Your task to perform on an android device: Go to internet settings Image 0: 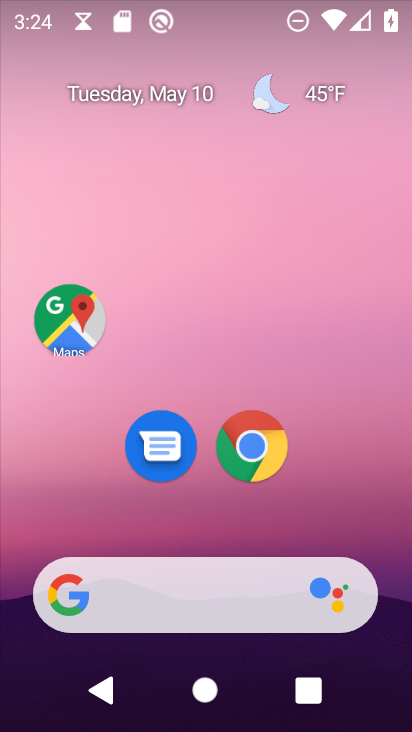
Step 0: drag from (364, 485) to (374, 39)
Your task to perform on an android device: Go to internet settings Image 1: 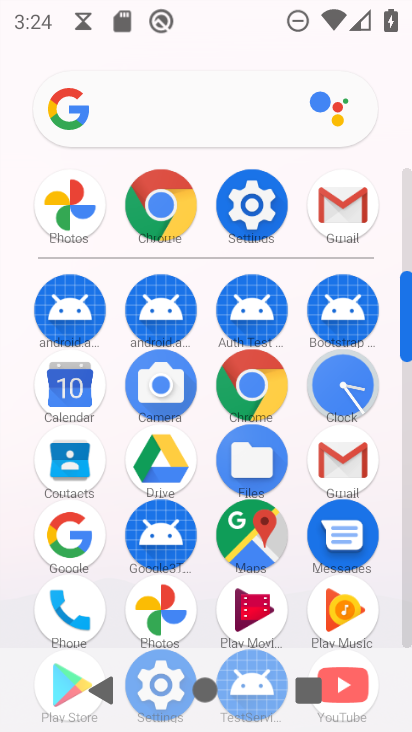
Step 1: click (266, 203)
Your task to perform on an android device: Go to internet settings Image 2: 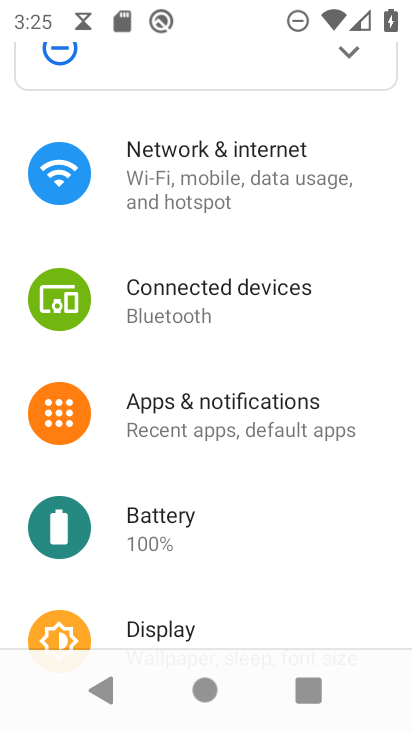
Step 2: click (191, 211)
Your task to perform on an android device: Go to internet settings Image 3: 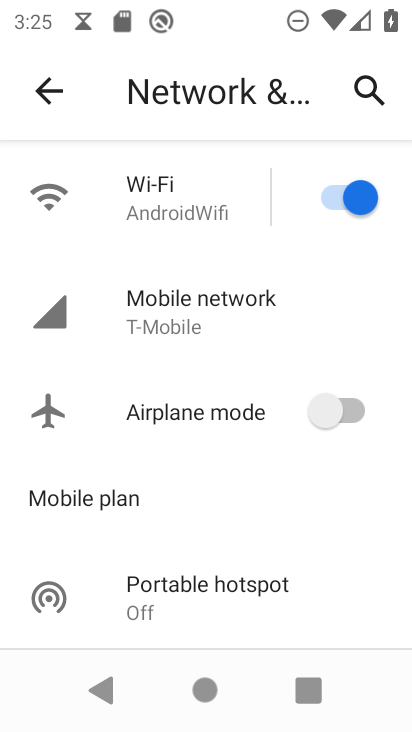
Step 3: click (173, 296)
Your task to perform on an android device: Go to internet settings Image 4: 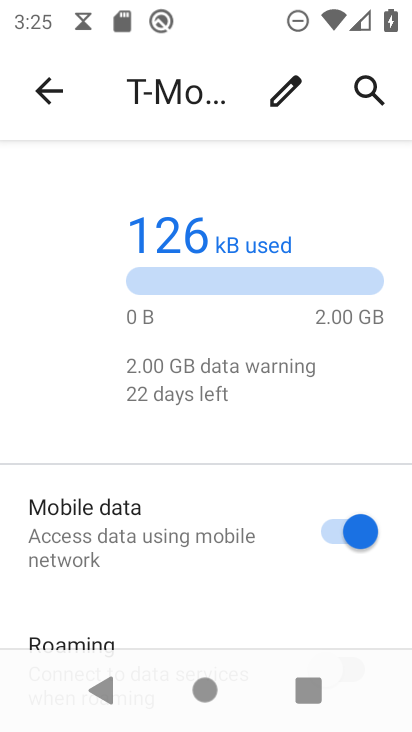
Step 4: task complete